Your task to perform on an android device: Go to Reddit.com Image 0: 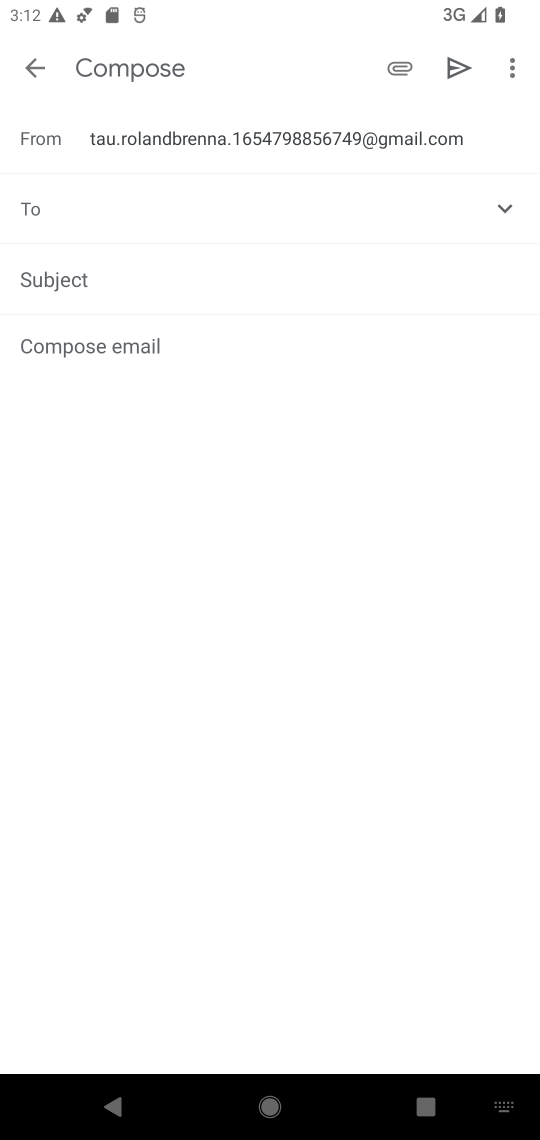
Step 0: press home button
Your task to perform on an android device: Go to Reddit.com Image 1: 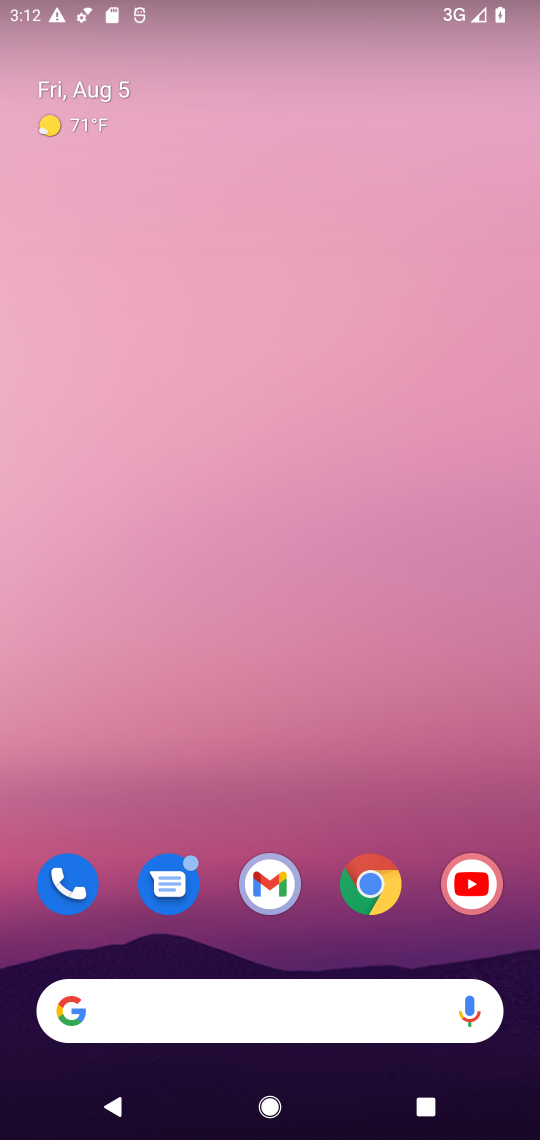
Step 1: drag from (445, 928) to (236, 37)
Your task to perform on an android device: Go to Reddit.com Image 2: 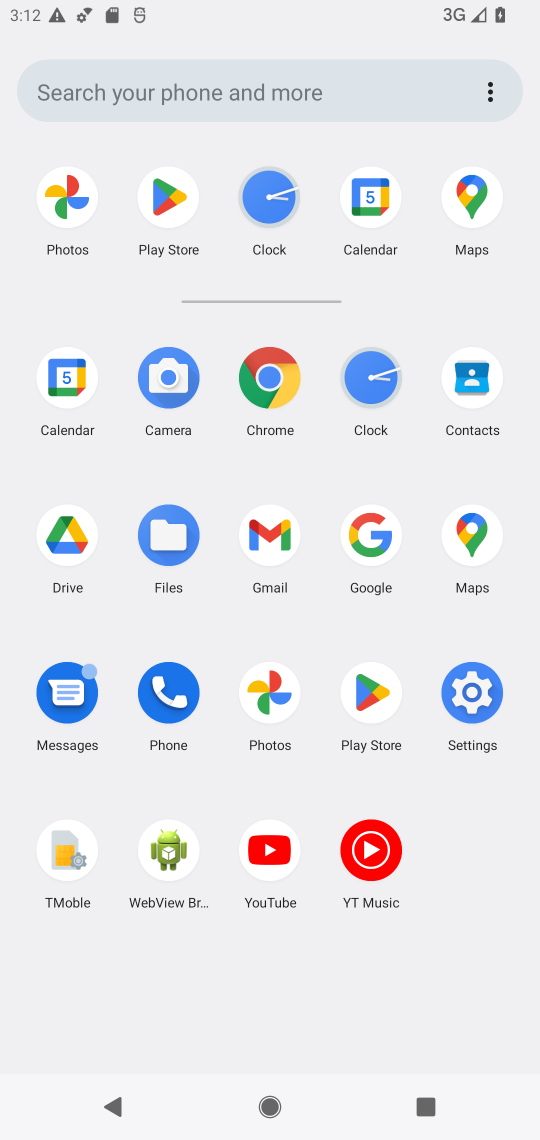
Step 2: click (351, 548)
Your task to perform on an android device: Go to Reddit.com Image 3: 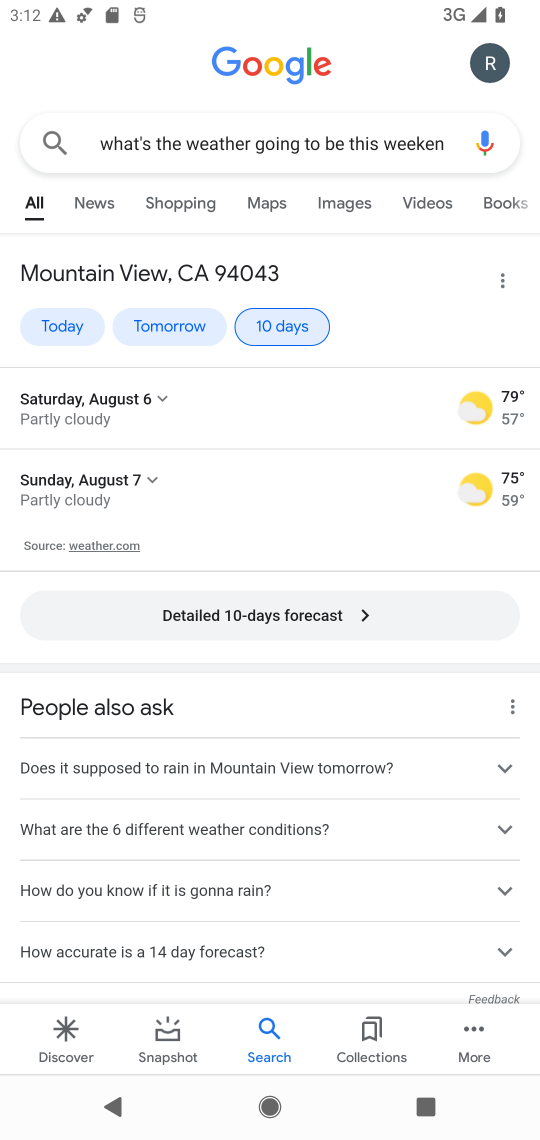
Step 3: press back button
Your task to perform on an android device: Go to Reddit.com Image 4: 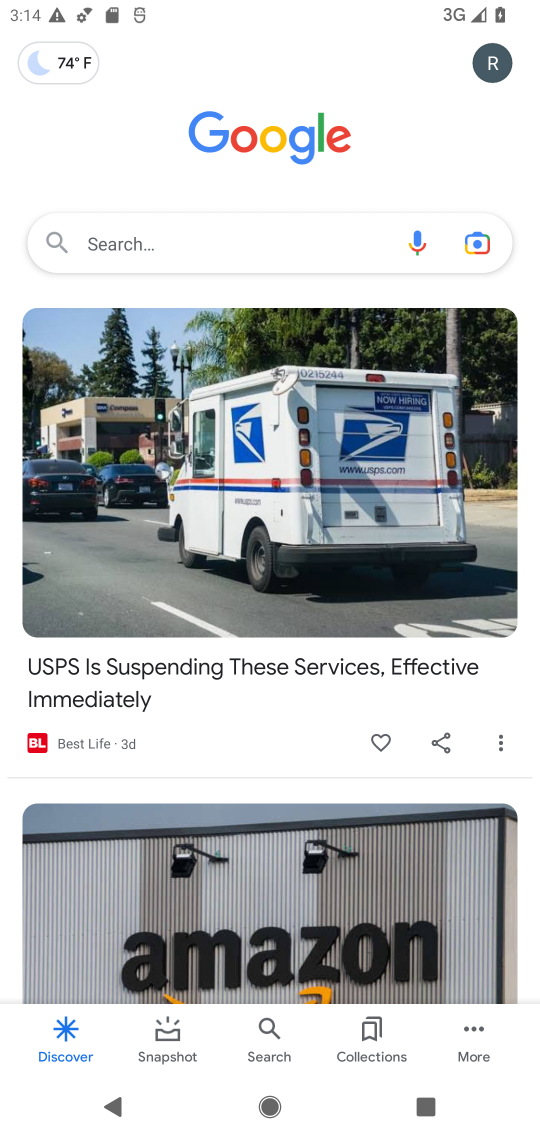
Step 4: click (145, 260)
Your task to perform on an android device: Go to Reddit.com Image 5: 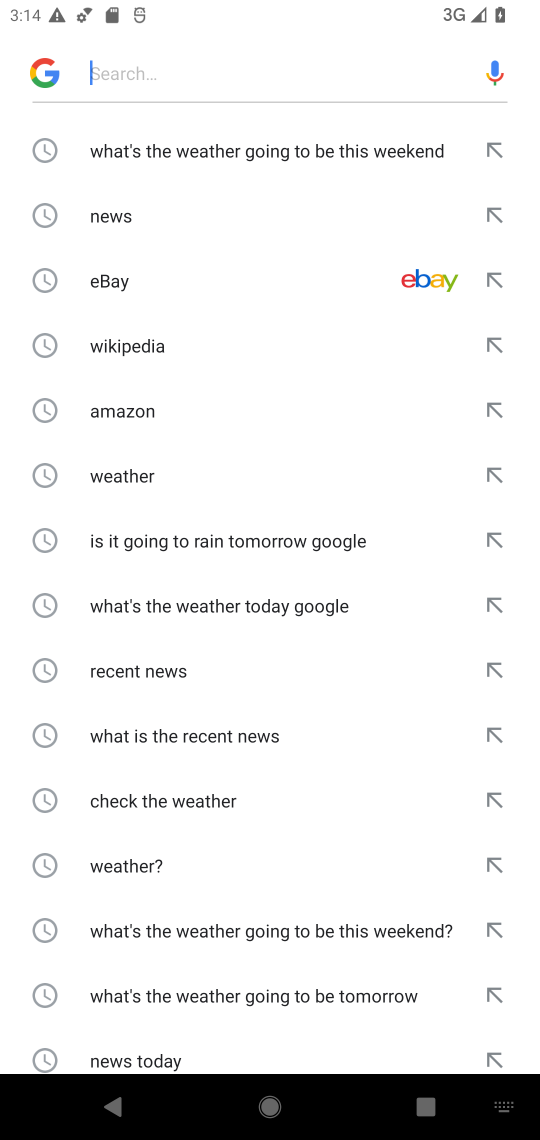
Step 5: type "Reddit.com"
Your task to perform on an android device: Go to Reddit.com Image 6: 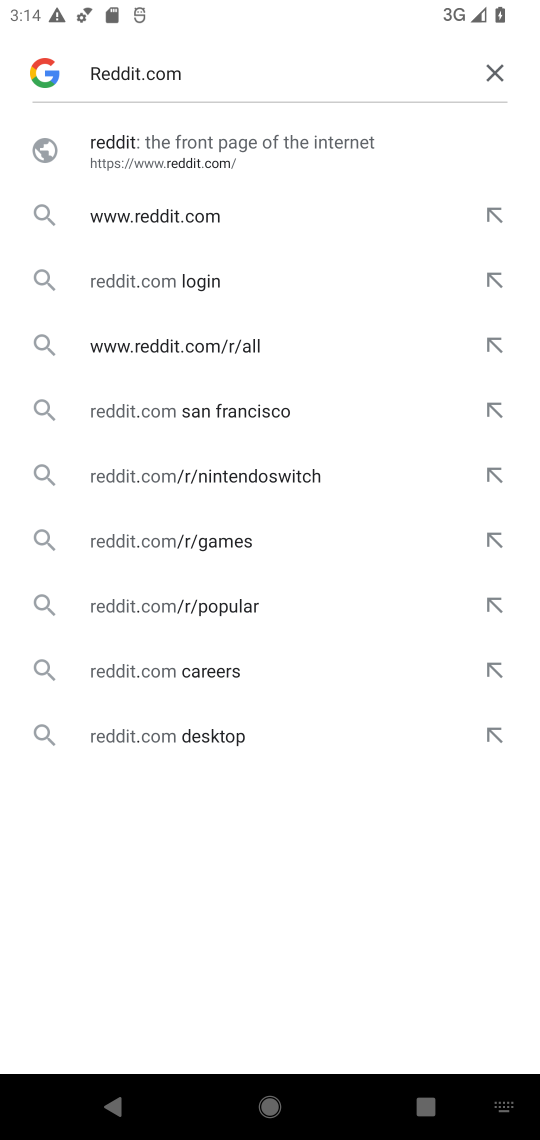
Step 6: click (209, 161)
Your task to perform on an android device: Go to Reddit.com Image 7: 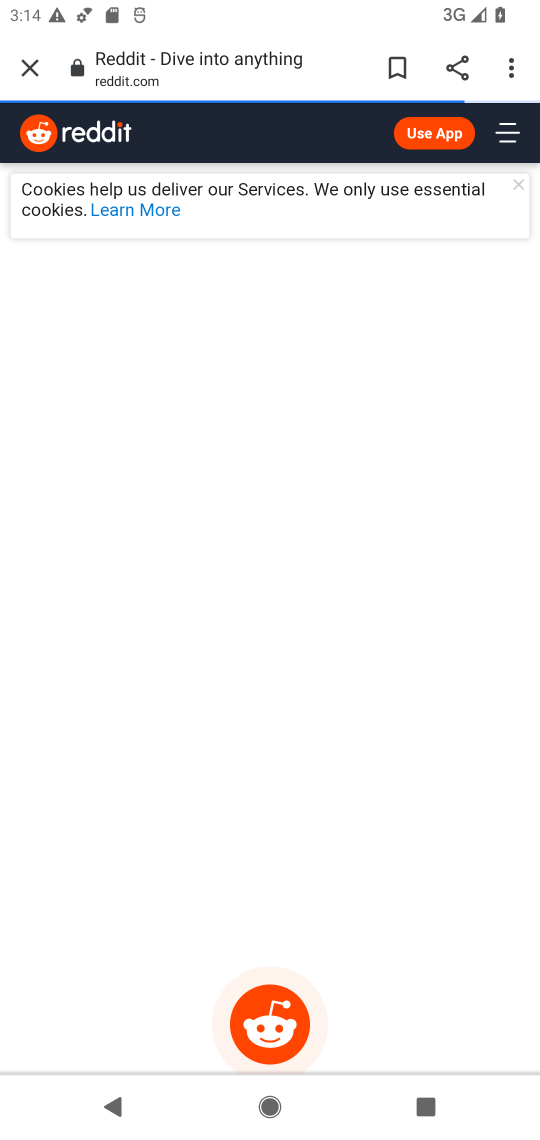
Step 7: task complete